Your task to perform on an android device: turn on sleep mode Image 0: 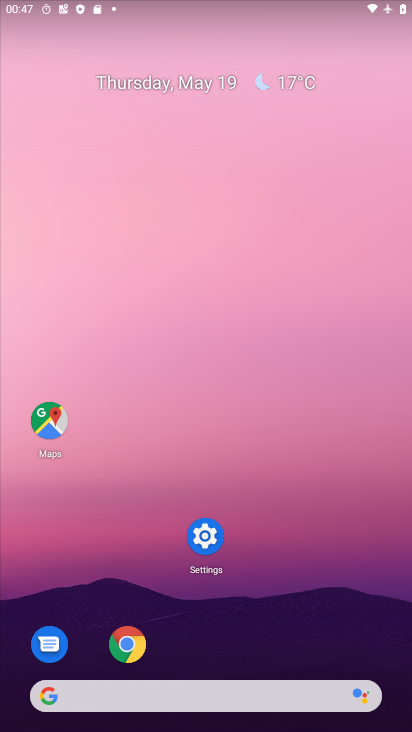
Step 0: drag from (302, 584) to (291, 103)
Your task to perform on an android device: turn on sleep mode Image 1: 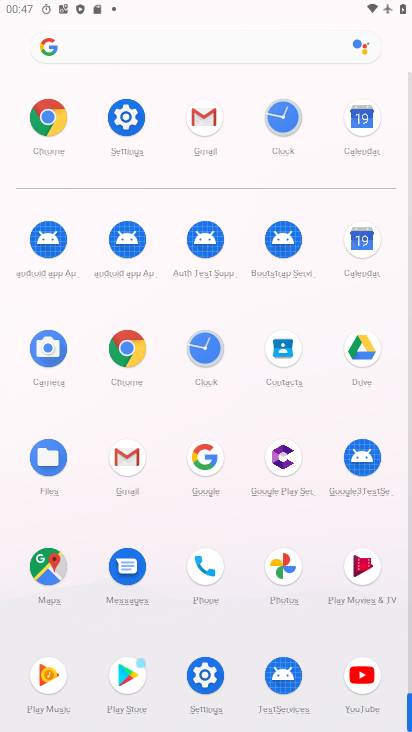
Step 1: click (127, 119)
Your task to perform on an android device: turn on sleep mode Image 2: 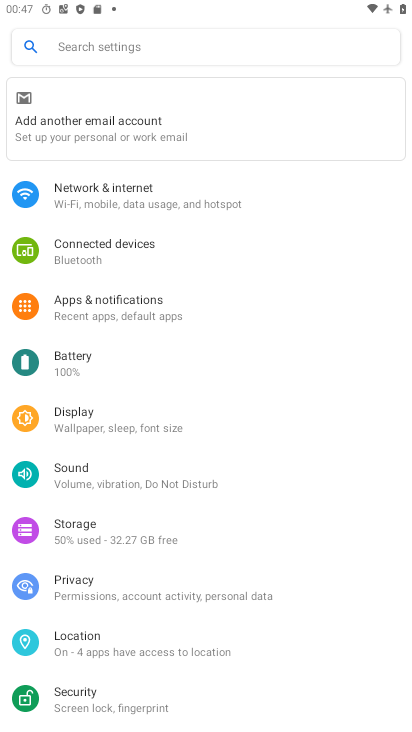
Step 2: click (106, 425)
Your task to perform on an android device: turn on sleep mode Image 3: 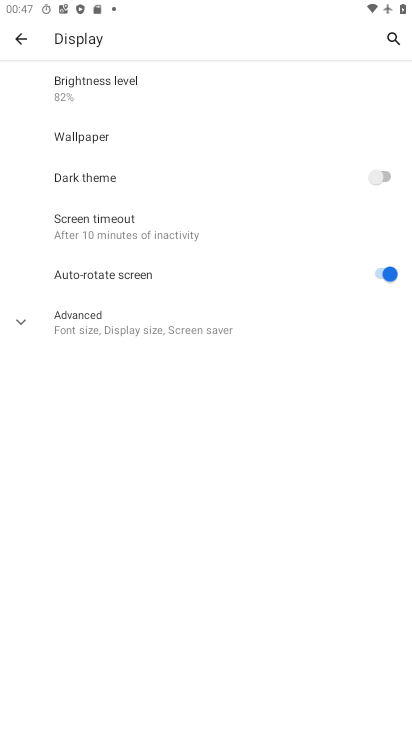
Step 3: click (111, 218)
Your task to perform on an android device: turn on sleep mode Image 4: 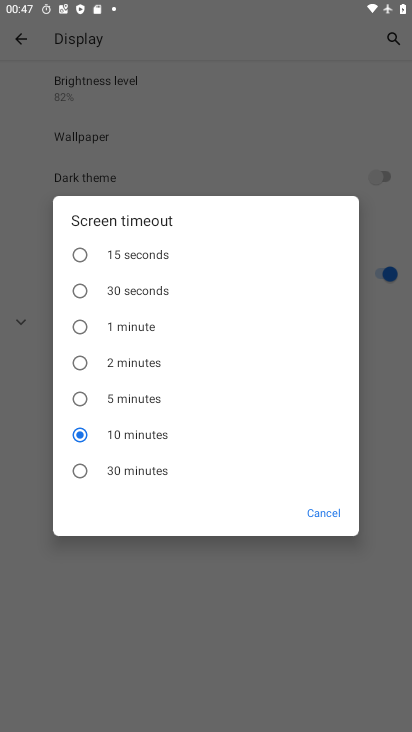
Step 4: task complete